Your task to perform on an android device: turn off improve location accuracy Image 0: 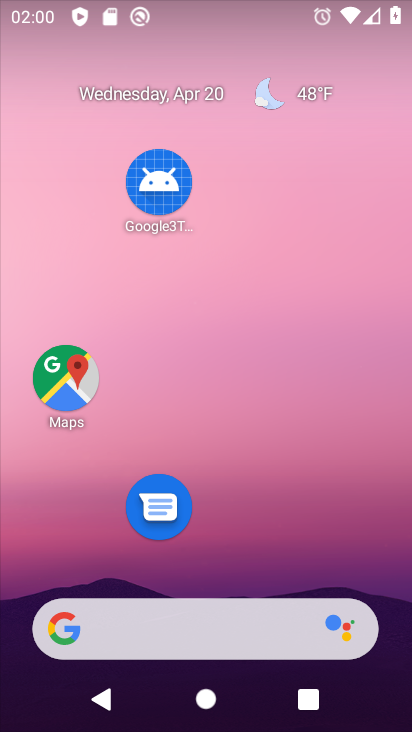
Step 0: drag from (234, 519) to (218, 7)
Your task to perform on an android device: turn off improve location accuracy Image 1: 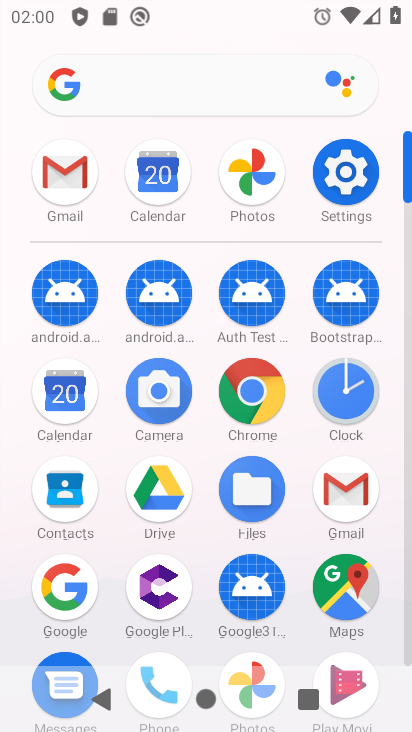
Step 1: click (341, 173)
Your task to perform on an android device: turn off improve location accuracy Image 2: 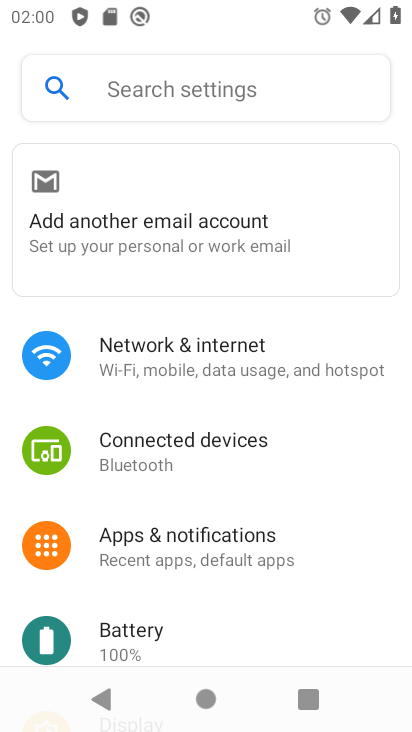
Step 2: drag from (213, 605) to (253, 270)
Your task to perform on an android device: turn off improve location accuracy Image 3: 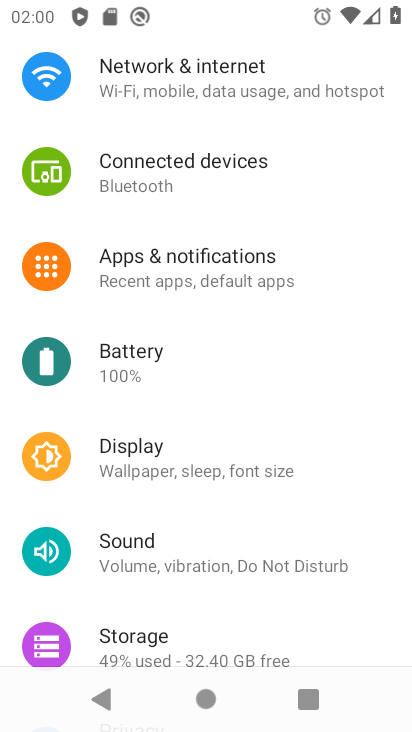
Step 3: drag from (231, 507) to (193, 80)
Your task to perform on an android device: turn off improve location accuracy Image 4: 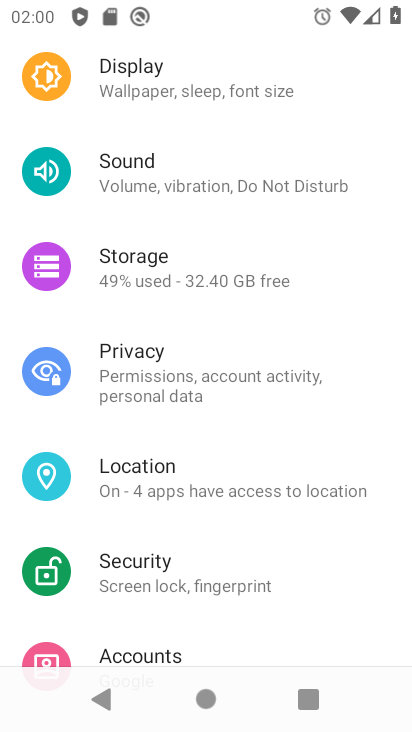
Step 4: click (127, 469)
Your task to perform on an android device: turn off improve location accuracy Image 5: 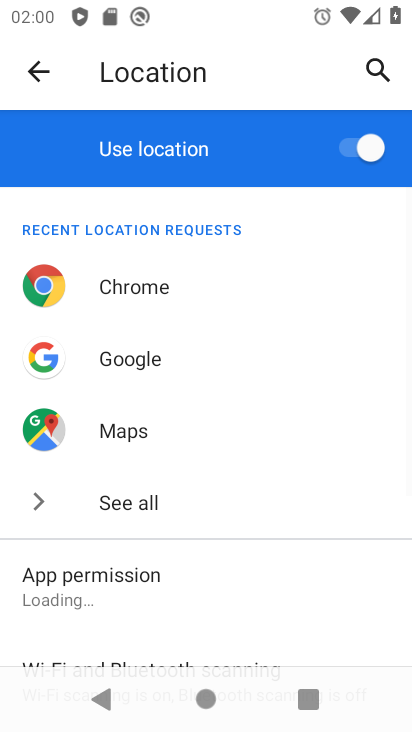
Step 5: drag from (202, 552) to (246, 186)
Your task to perform on an android device: turn off improve location accuracy Image 6: 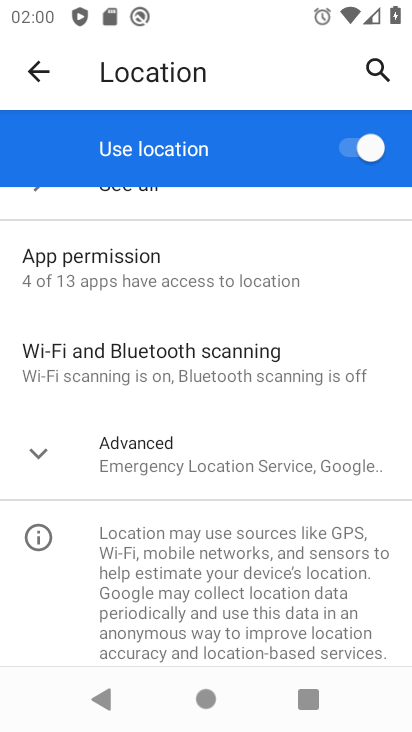
Step 6: click (39, 455)
Your task to perform on an android device: turn off improve location accuracy Image 7: 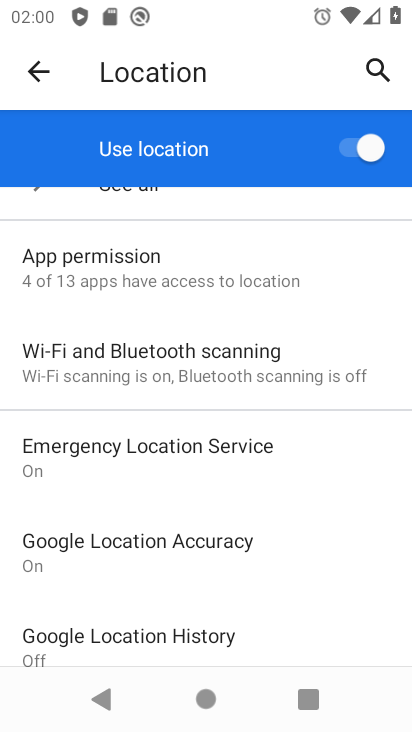
Step 7: click (133, 535)
Your task to perform on an android device: turn off improve location accuracy Image 8: 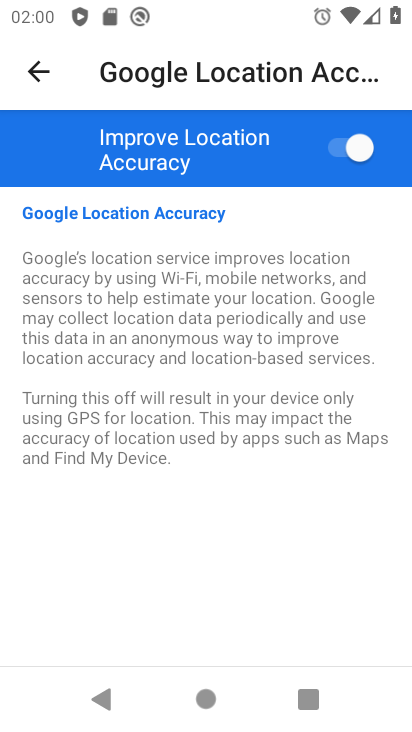
Step 8: click (349, 149)
Your task to perform on an android device: turn off improve location accuracy Image 9: 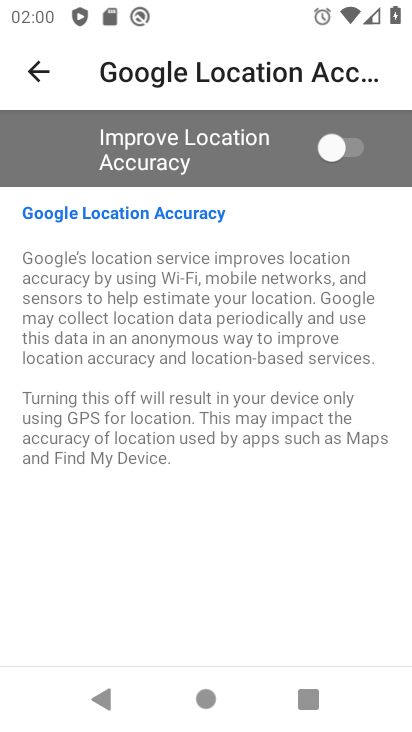
Step 9: task complete